Your task to perform on an android device: remove spam from my inbox in the gmail app Image 0: 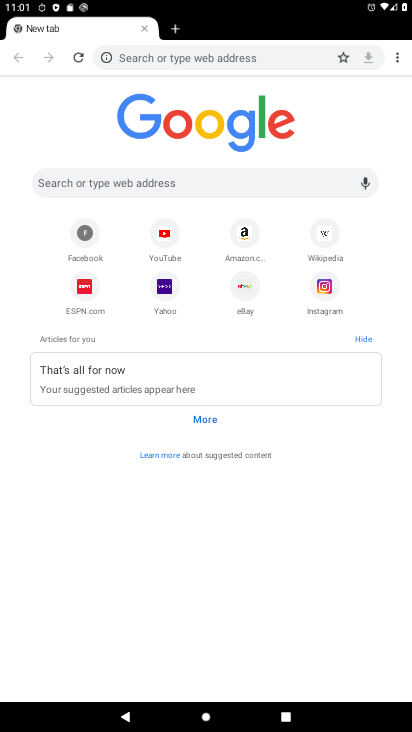
Step 0: press home button
Your task to perform on an android device: remove spam from my inbox in the gmail app Image 1: 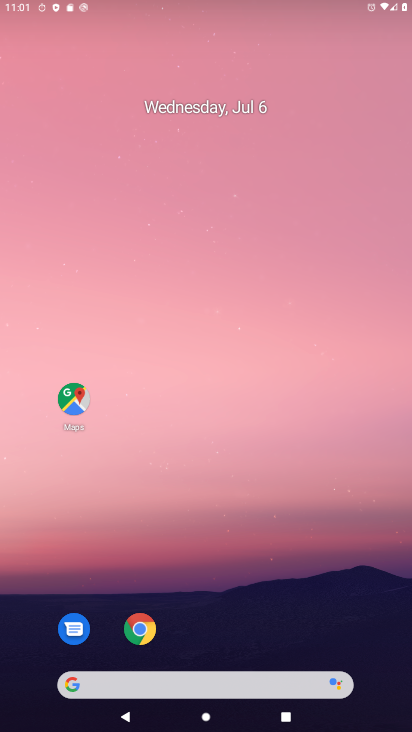
Step 1: drag from (231, 612) to (266, 149)
Your task to perform on an android device: remove spam from my inbox in the gmail app Image 2: 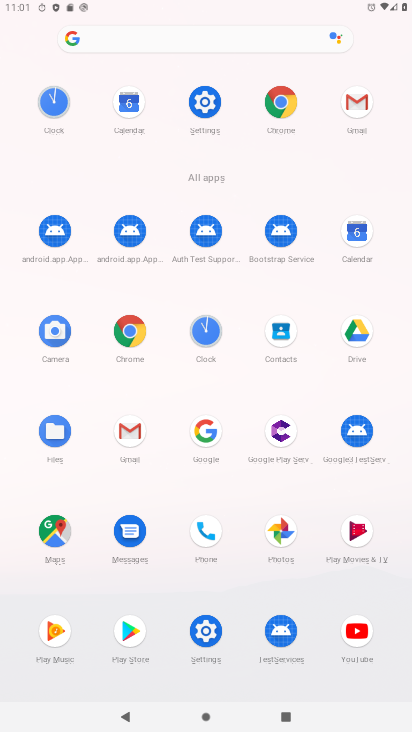
Step 2: click (357, 111)
Your task to perform on an android device: remove spam from my inbox in the gmail app Image 3: 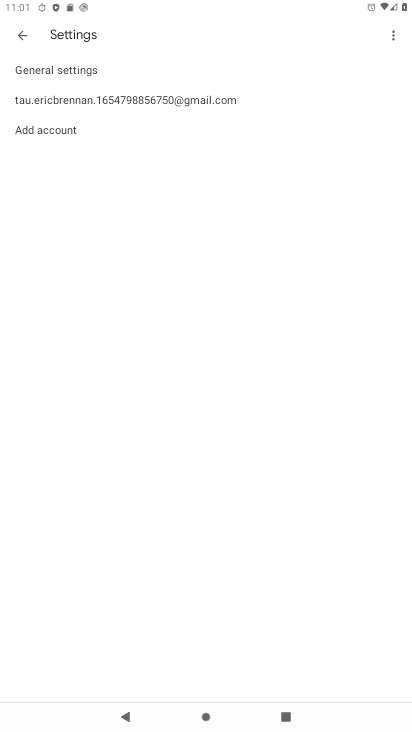
Step 3: press back button
Your task to perform on an android device: remove spam from my inbox in the gmail app Image 4: 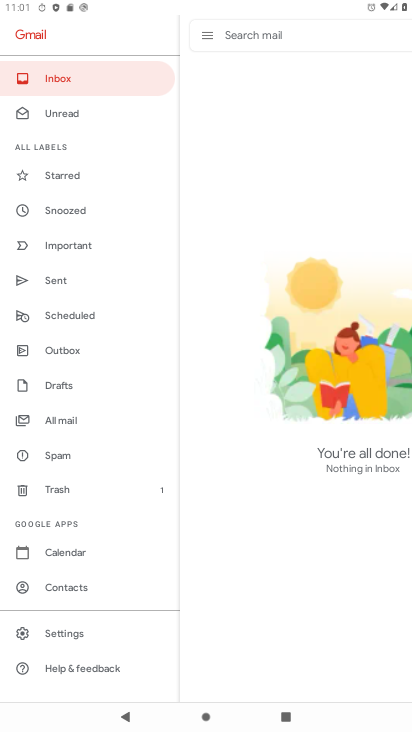
Step 4: click (63, 457)
Your task to perform on an android device: remove spam from my inbox in the gmail app Image 5: 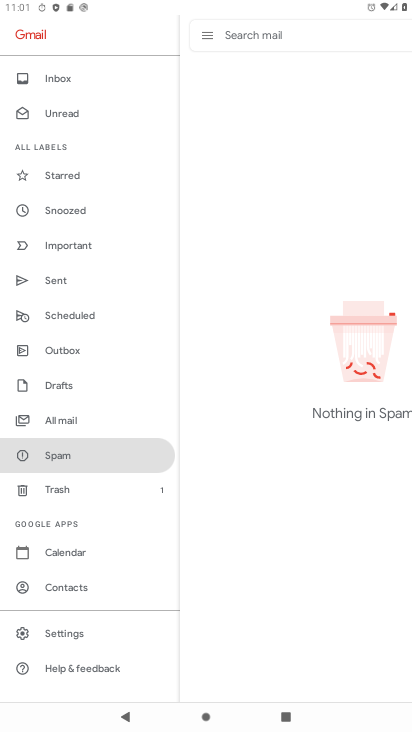
Step 5: click (72, 78)
Your task to perform on an android device: remove spam from my inbox in the gmail app Image 6: 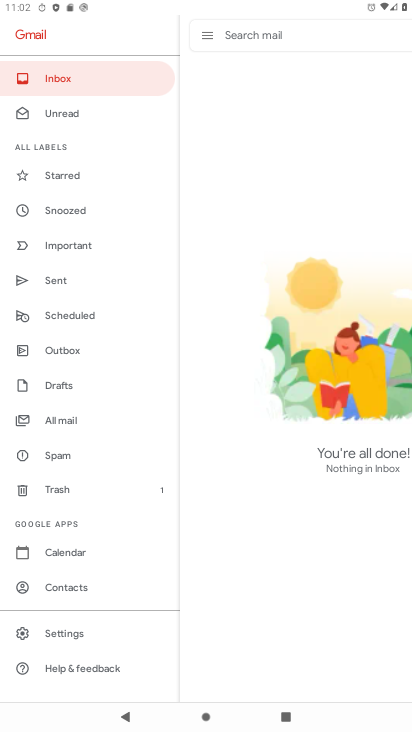
Step 6: task complete